Your task to perform on an android device: Open Google Chrome Image 0: 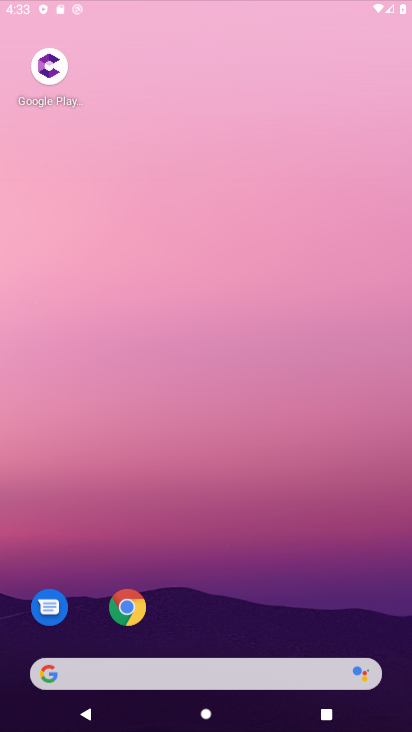
Step 0: press home button
Your task to perform on an android device: Open Google Chrome Image 1: 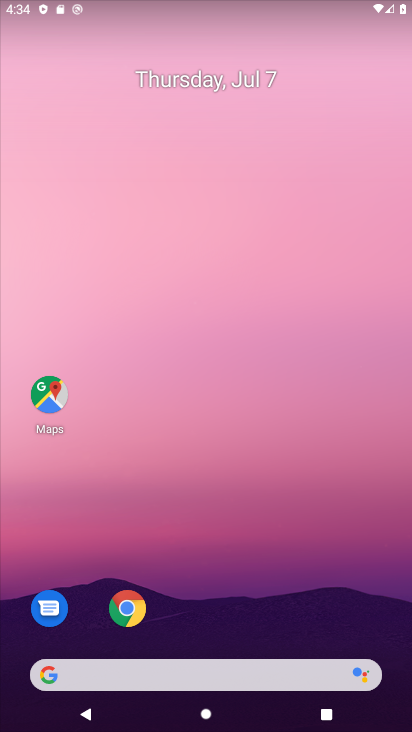
Step 1: click (132, 605)
Your task to perform on an android device: Open Google Chrome Image 2: 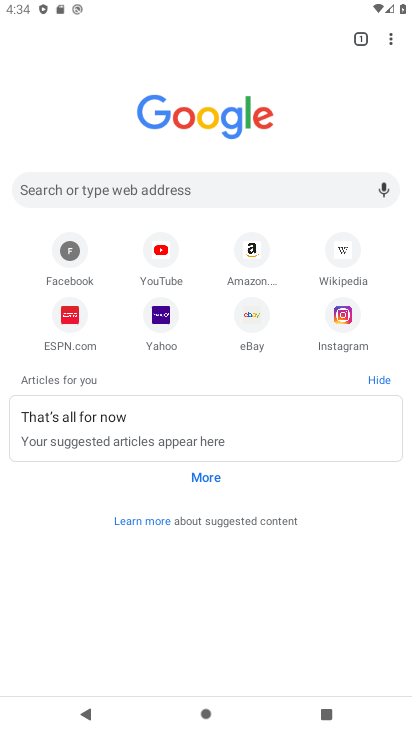
Step 2: click (102, 187)
Your task to perform on an android device: Open Google Chrome Image 3: 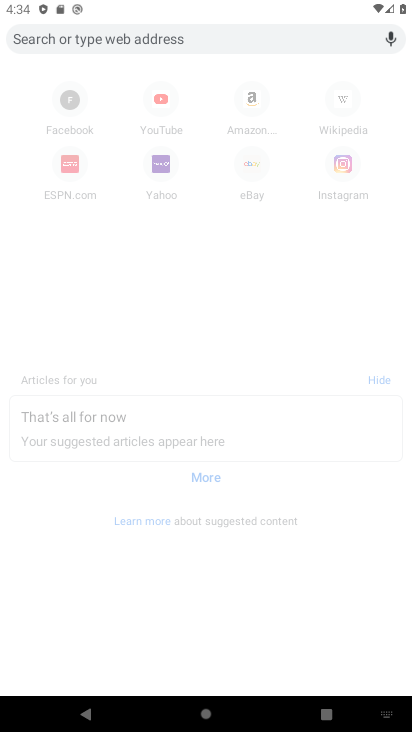
Step 3: task complete